Your task to perform on an android device: turn on the 24-hour format for clock Image 0: 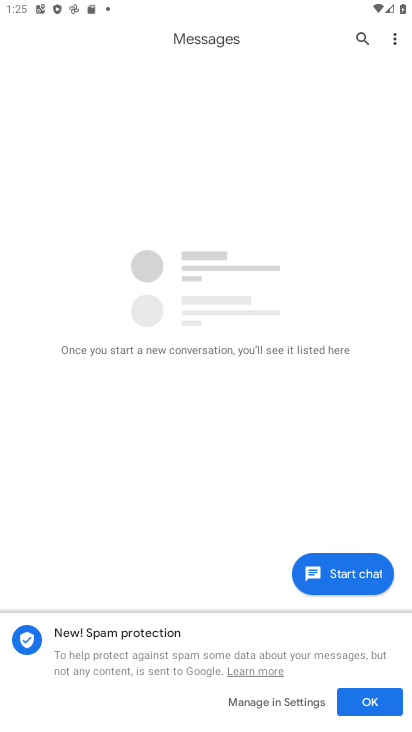
Step 0: press home button
Your task to perform on an android device: turn on the 24-hour format for clock Image 1: 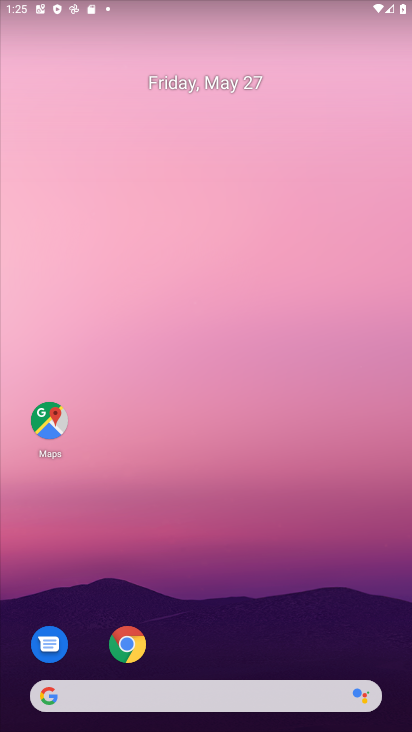
Step 1: drag from (348, 628) to (224, 21)
Your task to perform on an android device: turn on the 24-hour format for clock Image 2: 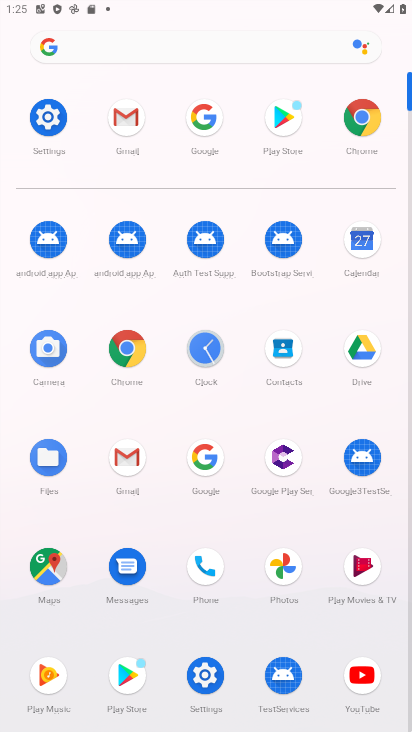
Step 2: click (220, 357)
Your task to perform on an android device: turn on the 24-hour format for clock Image 3: 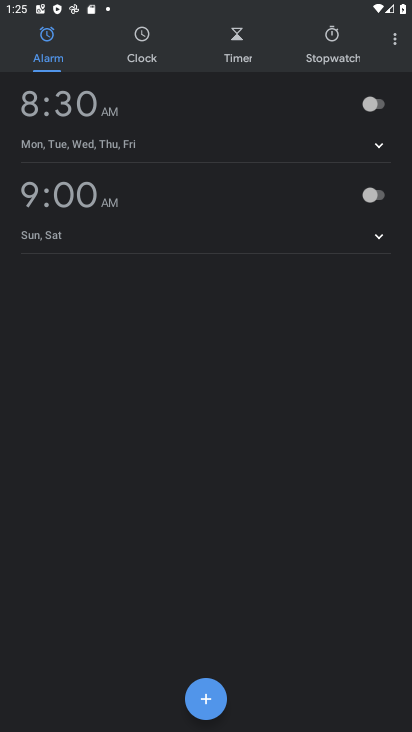
Step 3: click (398, 47)
Your task to perform on an android device: turn on the 24-hour format for clock Image 4: 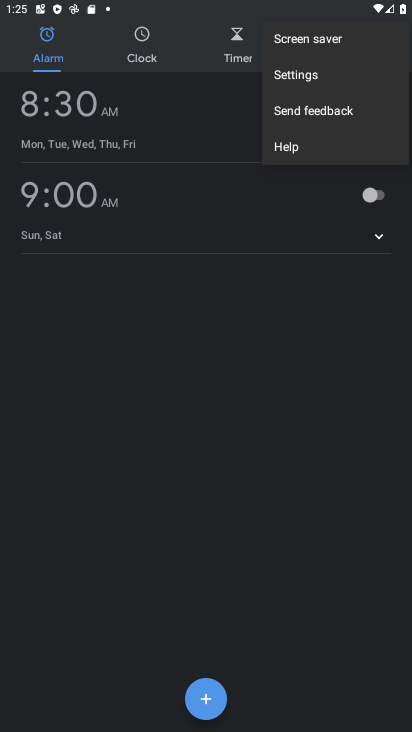
Step 4: click (286, 80)
Your task to perform on an android device: turn on the 24-hour format for clock Image 5: 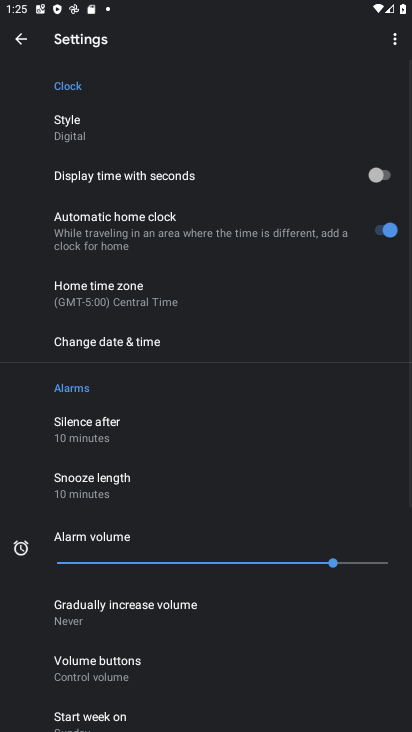
Step 5: click (122, 343)
Your task to perform on an android device: turn on the 24-hour format for clock Image 6: 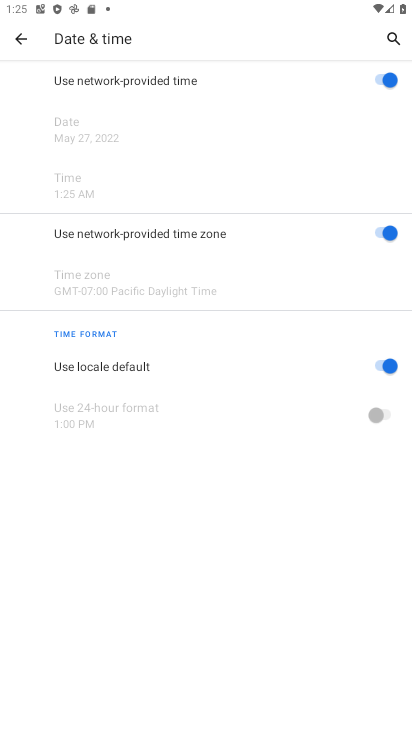
Step 6: task complete